Your task to perform on an android device: Go to CNN.com Image 0: 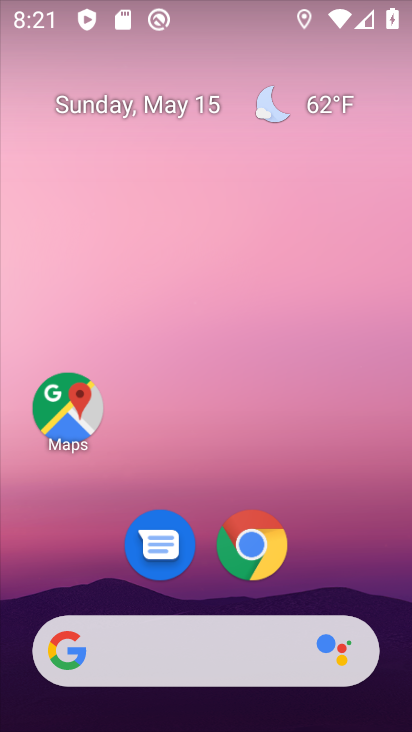
Step 0: click (265, 539)
Your task to perform on an android device: Go to CNN.com Image 1: 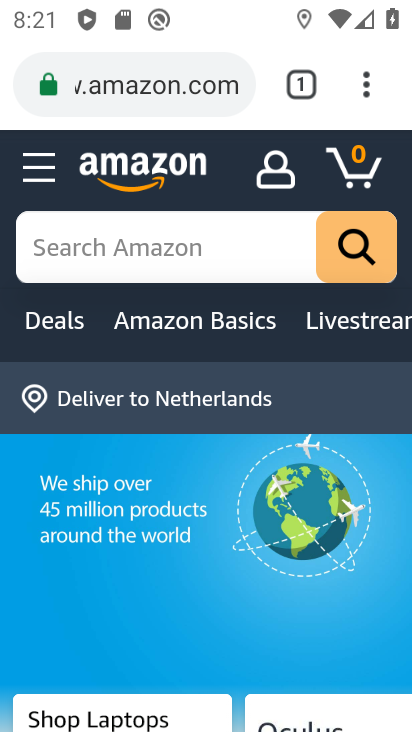
Step 1: press back button
Your task to perform on an android device: Go to CNN.com Image 2: 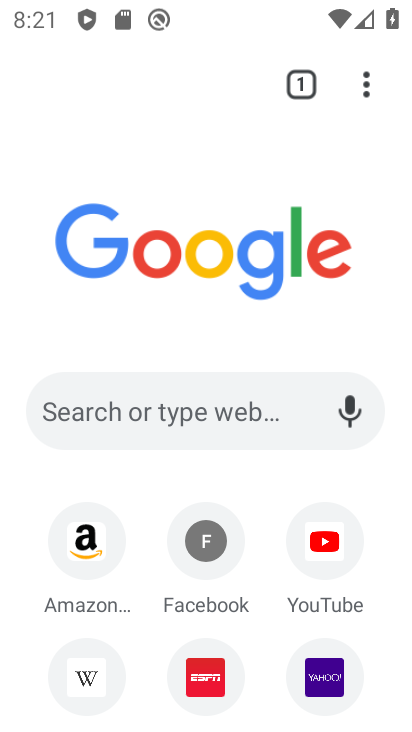
Step 2: drag from (299, 638) to (302, 187)
Your task to perform on an android device: Go to CNN.com Image 3: 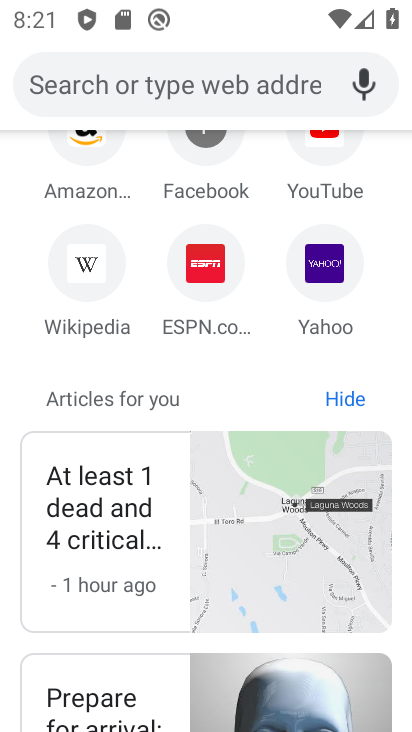
Step 3: drag from (225, 361) to (225, 687)
Your task to perform on an android device: Go to CNN.com Image 4: 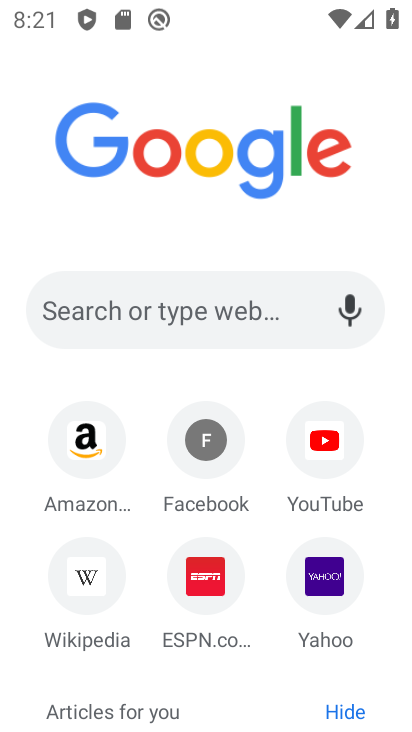
Step 4: click (111, 312)
Your task to perform on an android device: Go to CNN.com Image 5: 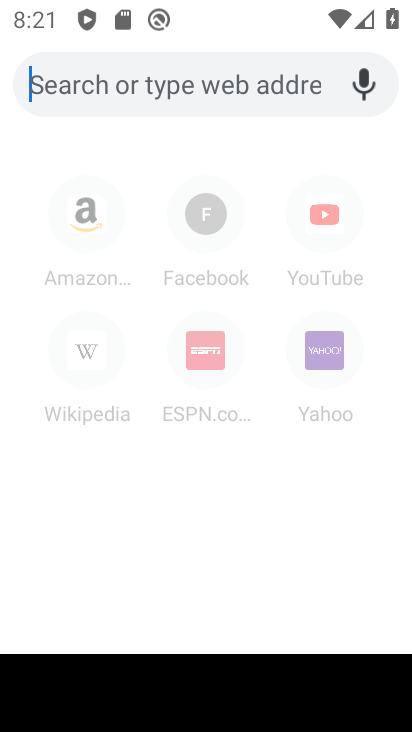
Step 5: type "www.cnn.com"
Your task to perform on an android device: Go to CNN.com Image 6: 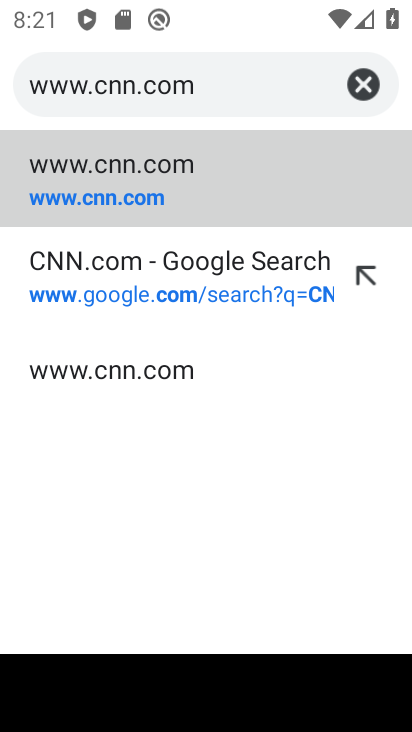
Step 6: click (94, 211)
Your task to perform on an android device: Go to CNN.com Image 7: 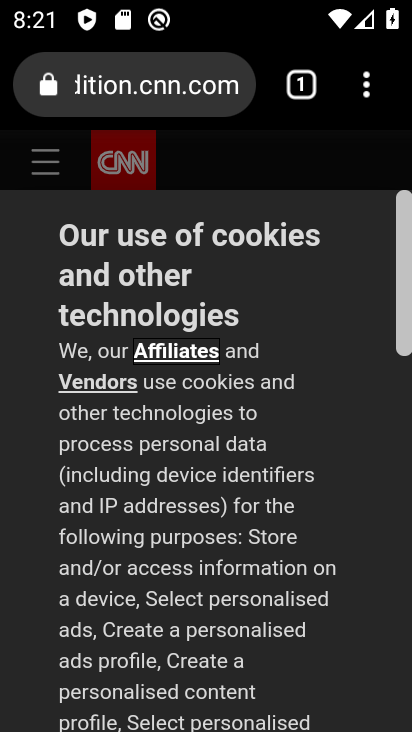
Step 7: task complete